Your task to perform on an android device: See recent photos Image 0: 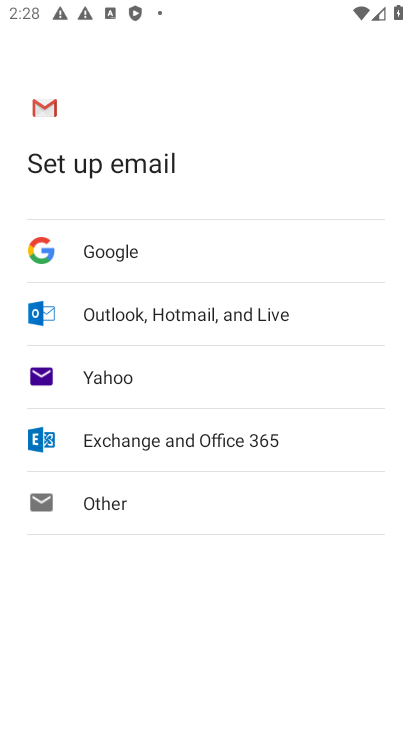
Step 0: press home button
Your task to perform on an android device: See recent photos Image 1: 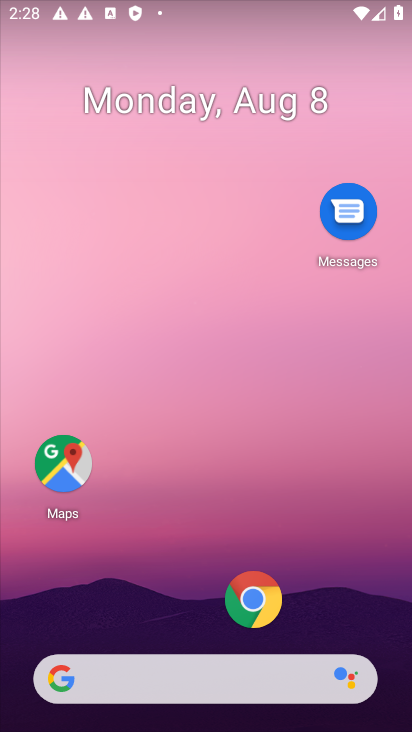
Step 1: drag from (147, 602) to (159, 121)
Your task to perform on an android device: See recent photos Image 2: 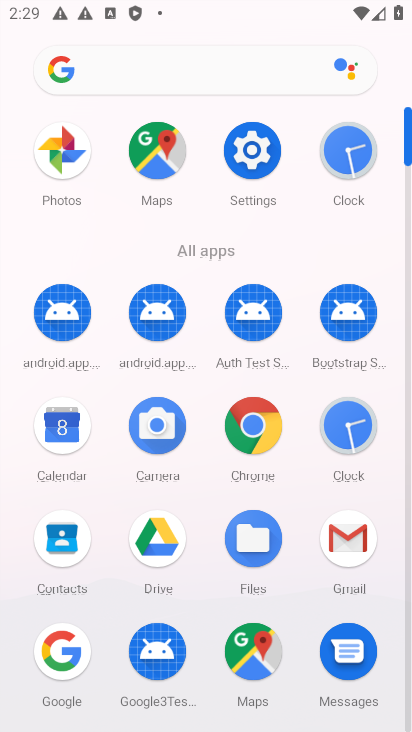
Step 2: click (70, 160)
Your task to perform on an android device: See recent photos Image 3: 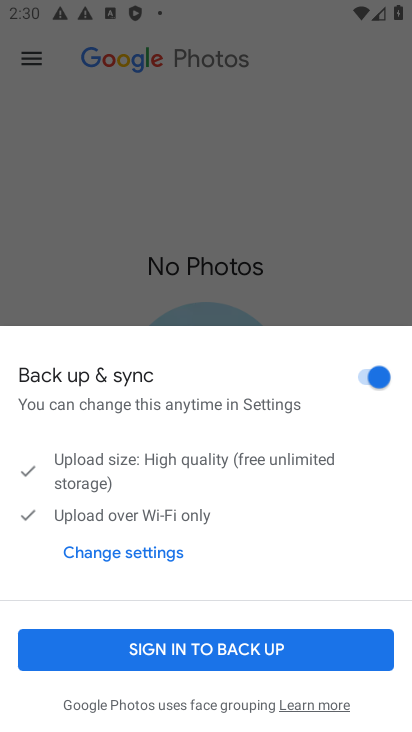
Step 3: click (294, 638)
Your task to perform on an android device: See recent photos Image 4: 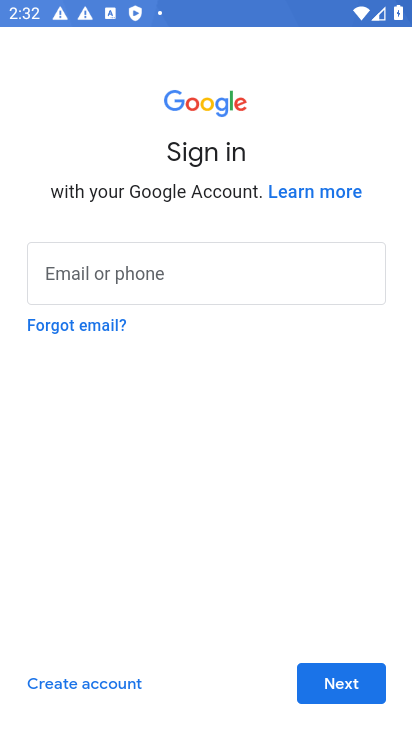
Step 4: task complete